Your task to perform on an android device: Show the shopping cart on ebay.com. Image 0: 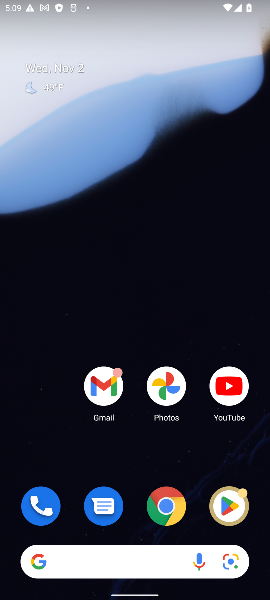
Step 0: click (167, 508)
Your task to perform on an android device: Show the shopping cart on ebay.com. Image 1: 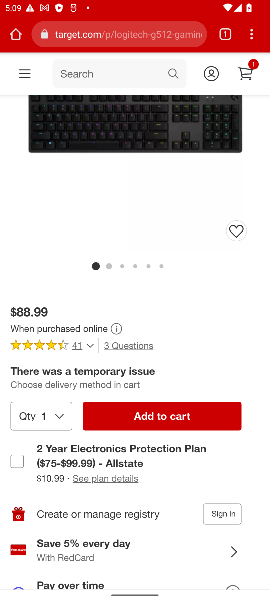
Step 1: click (137, 33)
Your task to perform on an android device: Show the shopping cart on ebay.com. Image 2: 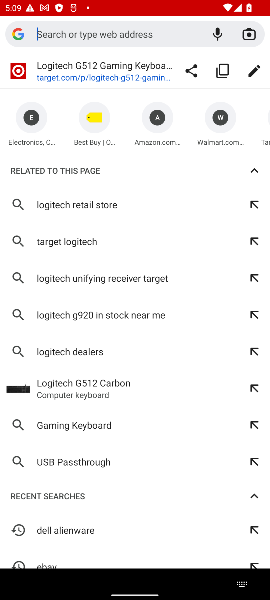
Step 2: type "ebay.com"
Your task to perform on an android device: Show the shopping cart on ebay.com. Image 3: 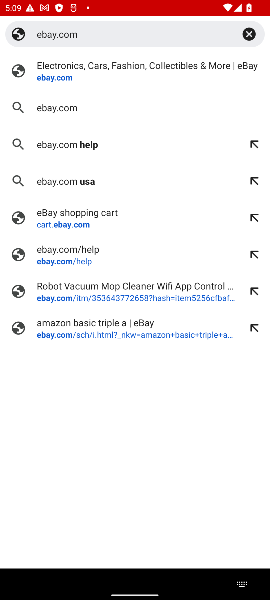
Step 3: click (130, 60)
Your task to perform on an android device: Show the shopping cart on ebay.com. Image 4: 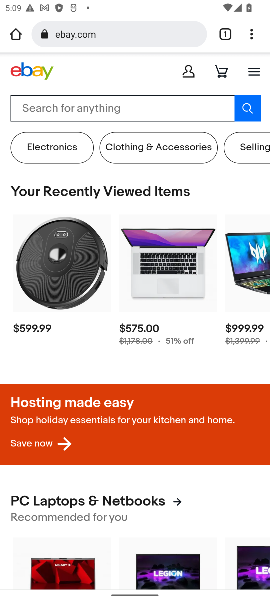
Step 4: click (210, 73)
Your task to perform on an android device: Show the shopping cart on ebay.com. Image 5: 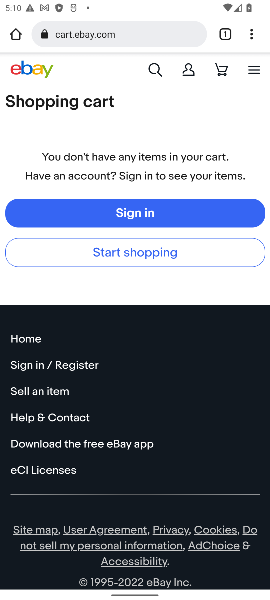
Step 5: task complete